Your task to perform on an android device: Open Yahoo.com Image 0: 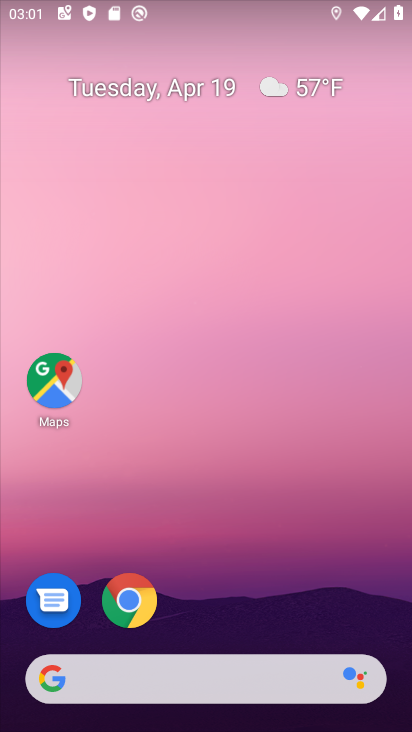
Step 0: drag from (340, 573) to (299, 147)
Your task to perform on an android device: Open Yahoo.com Image 1: 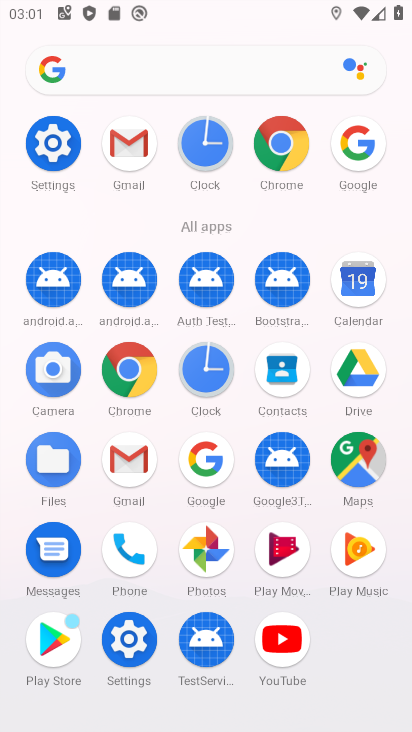
Step 1: click (299, 147)
Your task to perform on an android device: Open Yahoo.com Image 2: 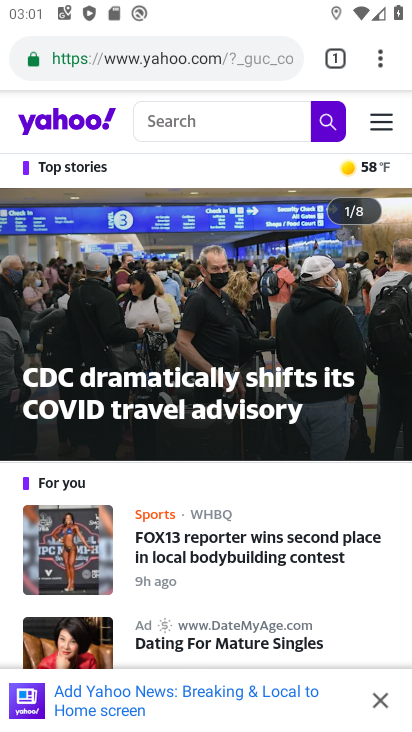
Step 2: task complete